Your task to perform on an android device: change your default location settings in chrome Image 0: 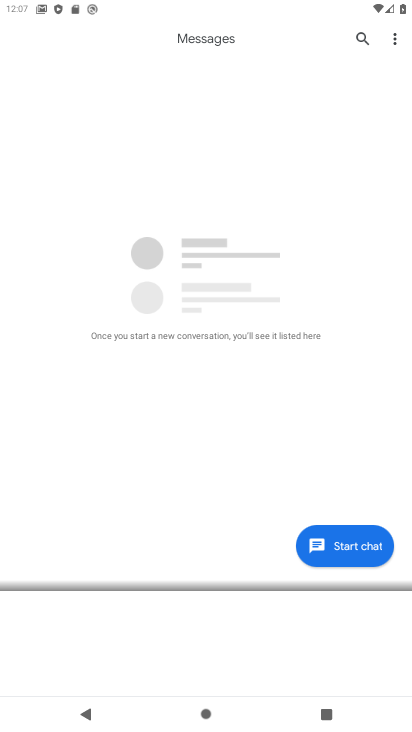
Step 0: press home button
Your task to perform on an android device: change your default location settings in chrome Image 1: 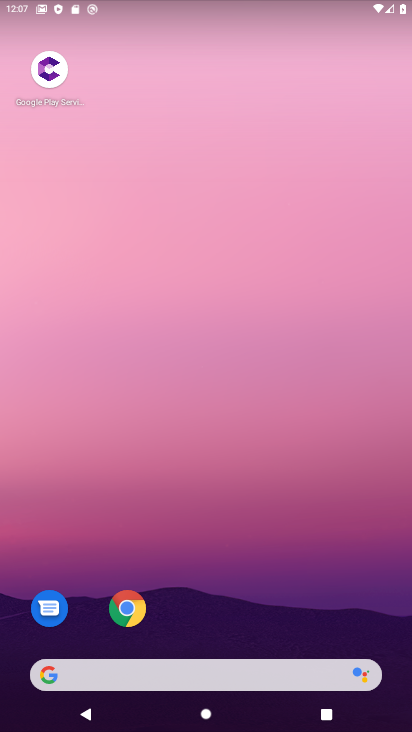
Step 1: drag from (222, 580) to (213, 0)
Your task to perform on an android device: change your default location settings in chrome Image 2: 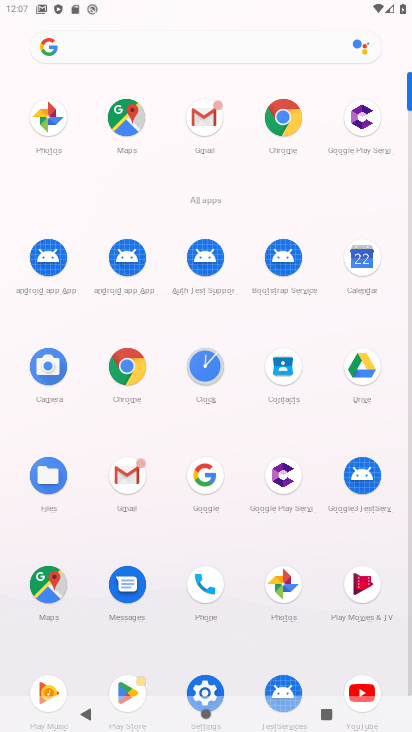
Step 2: click (124, 355)
Your task to perform on an android device: change your default location settings in chrome Image 3: 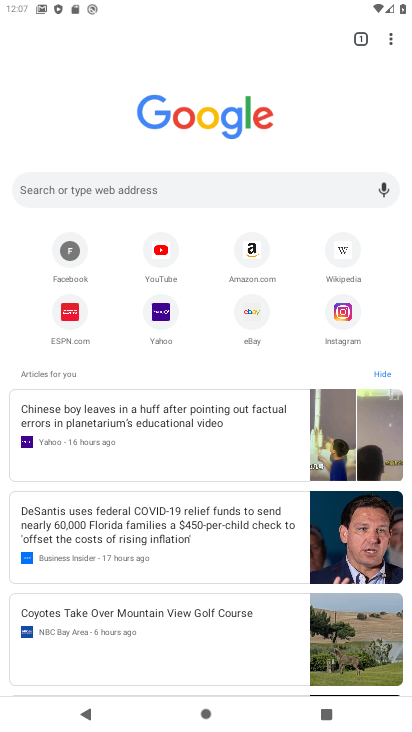
Step 3: click (389, 36)
Your task to perform on an android device: change your default location settings in chrome Image 4: 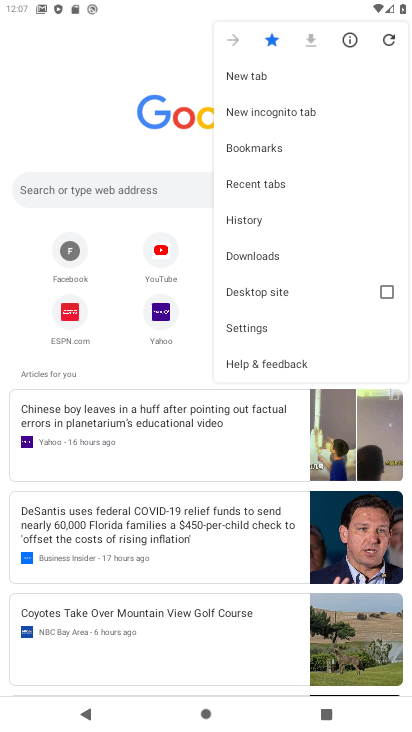
Step 4: click (245, 330)
Your task to perform on an android device: change your default location settings in chrome Image 5: 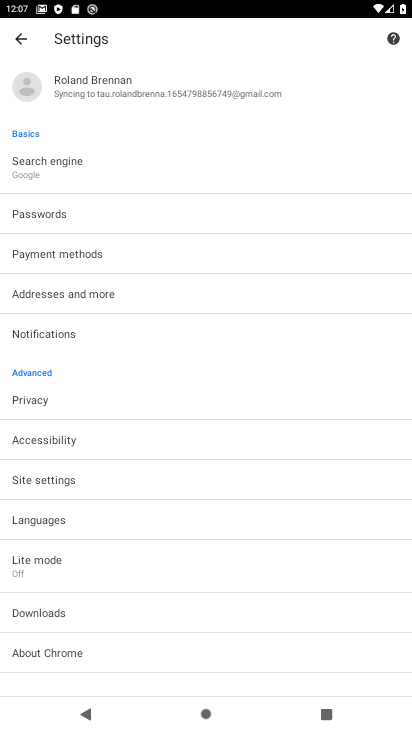
Step 5: click (43, 474)
Your task to perform on an android device: change your default location settings in chrome Image 6: 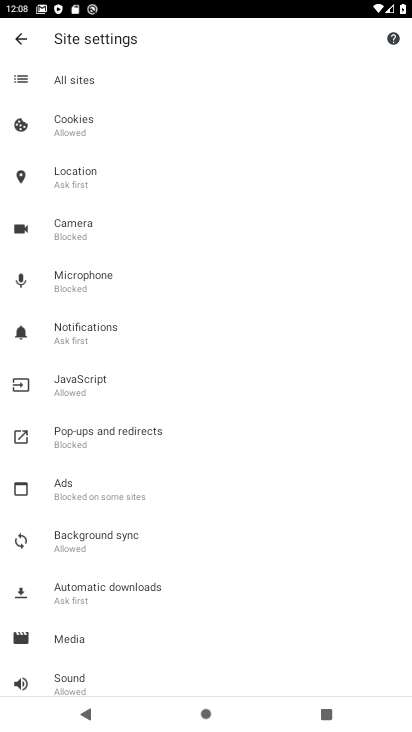
Step 6: click (100, 186)
Your task to perform on an android device: change your default location settings in chrome Image 7: 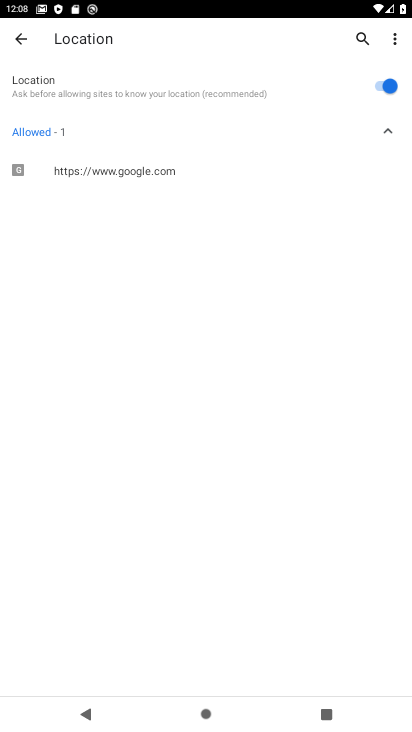
Step 7: click (368, 87)
Your task to perform on an android device: change your default location settings in chrome Image 8: 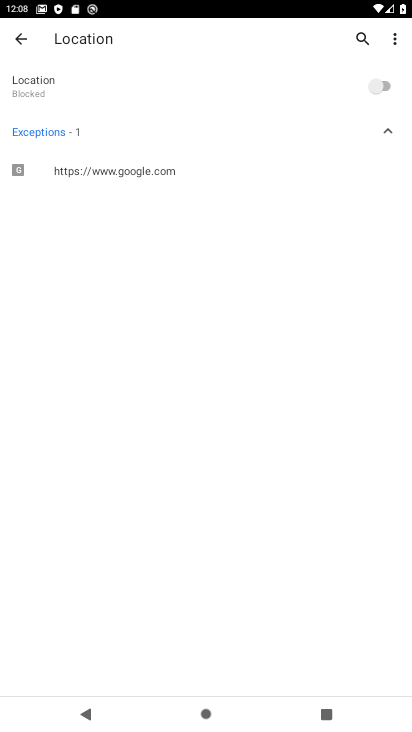
Step 8: task complete